Your task to perform on an android device: Go to Google maps Image 0: 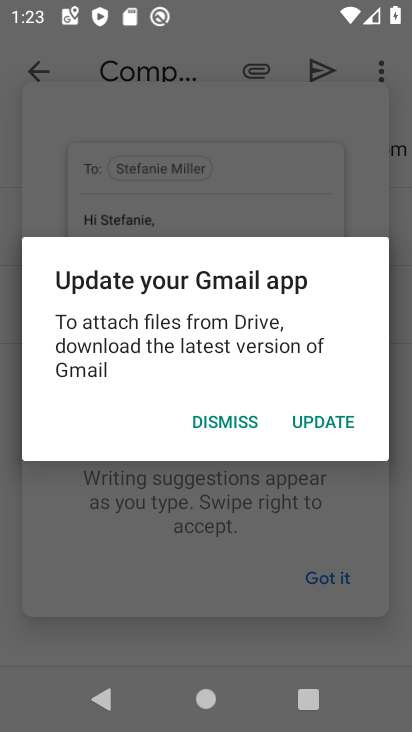
Step 0: press home button
Your task to perform on an android device: Go to Google maps Image 1: 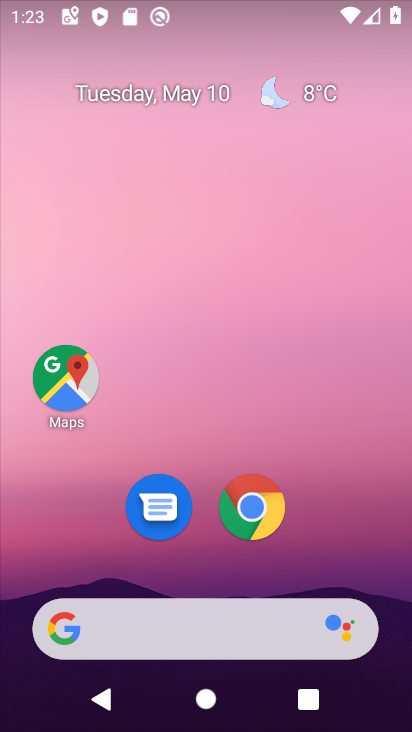
Step 1: drag from (232, 648) to (352, 121)
Your task to perform on an android device: Go to Google maps Image 2: 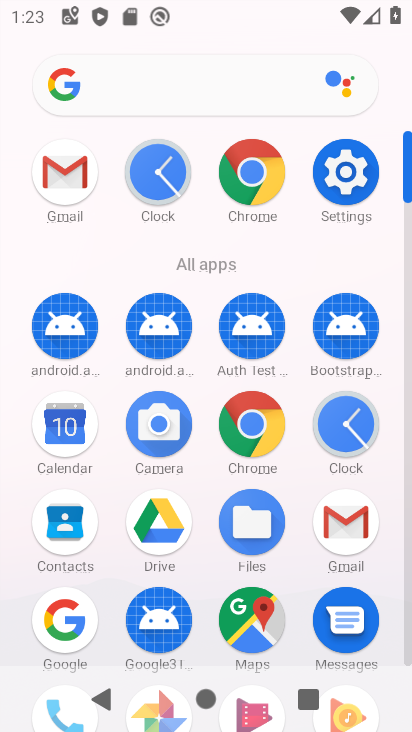
Step 2: click (250, 605)
Your task to perform on an android device: Go to Google maps Image 3: 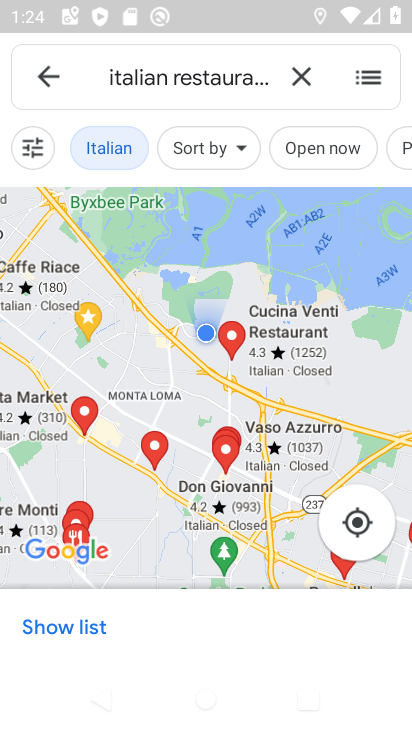
Step 3: click (40, 72)
Your task to perform on an android device: Go to Google maps Image 4: 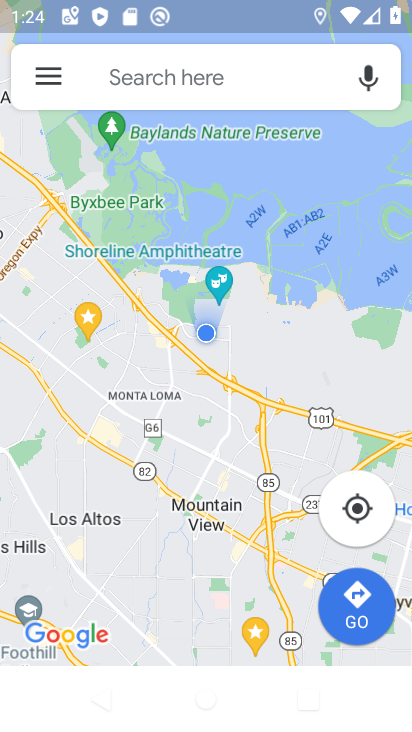
Step 4: click (364, 496)
Your task to perform on an android device: Go to Google maps Image 5: 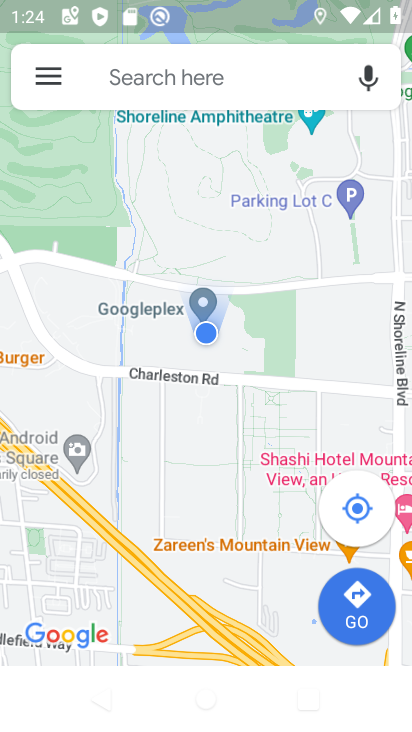
Step 5: task complete